Your task to perform on an android device: toggle location history Image 0: 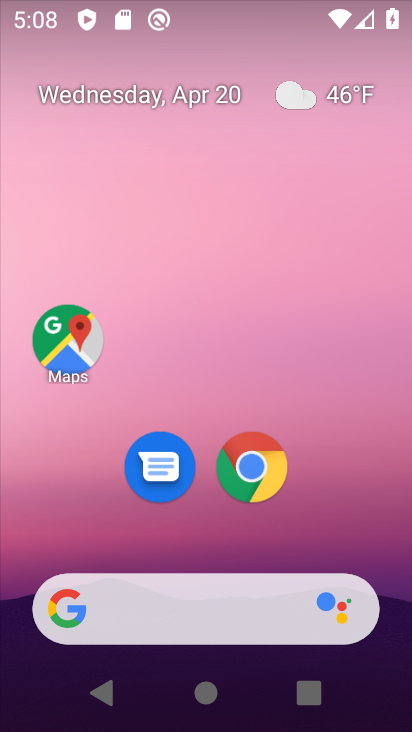
Step 0: click (264, 460)
Your task to perform on an android device: toggle location history Image 1: 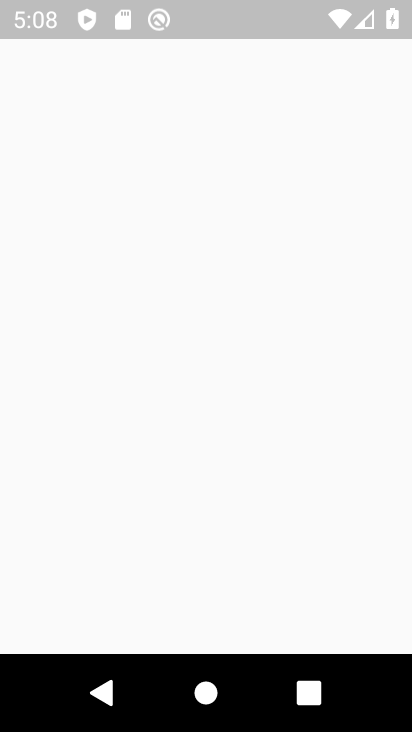
Step 1: click (253, 462)
Your task to perform on an android device: toggle location history Image 2: 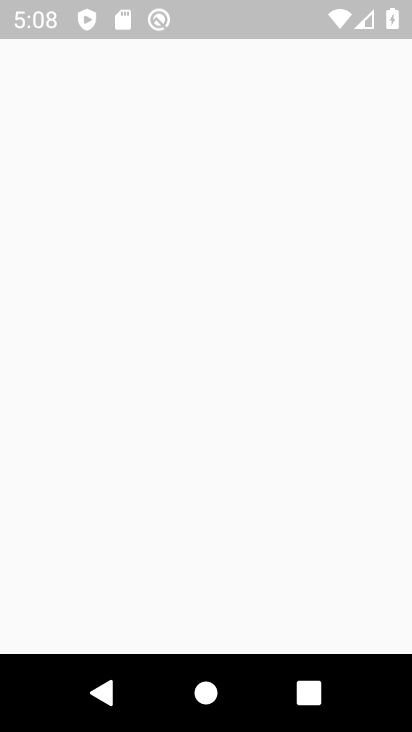
Step 2: press home button
Your task to perform on an android device: toggle location history Image 3: 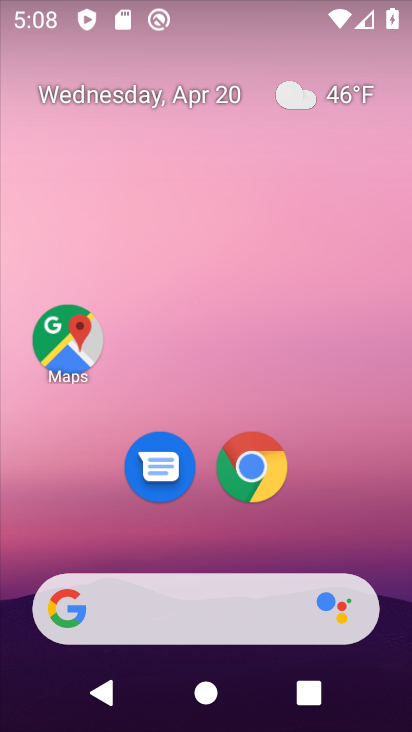
Step 3: drag from (197, 533) to (206, 107)
Your task to perform on an android device: toggle location history Image 4: 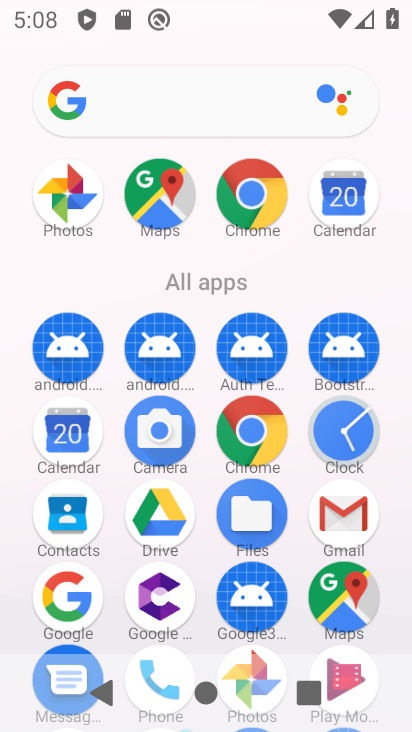
Step 4: drag from (217, 570) to (247, 180)
Your task to perform on an android device: toggle location history Image 5: 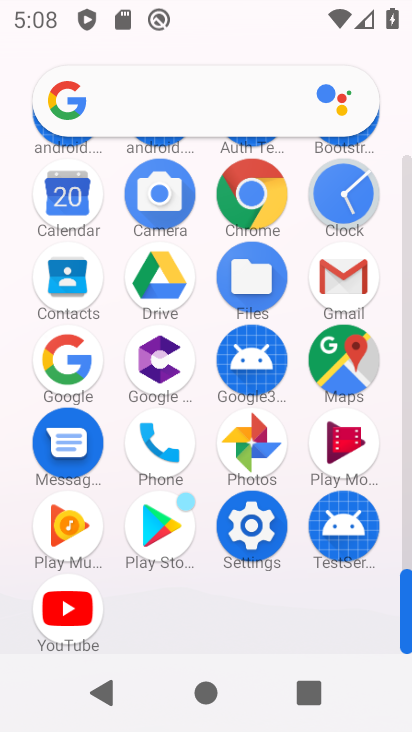
Step 5: click (259, 545)
Your task to perform on an android device: toggle location history Image 6: 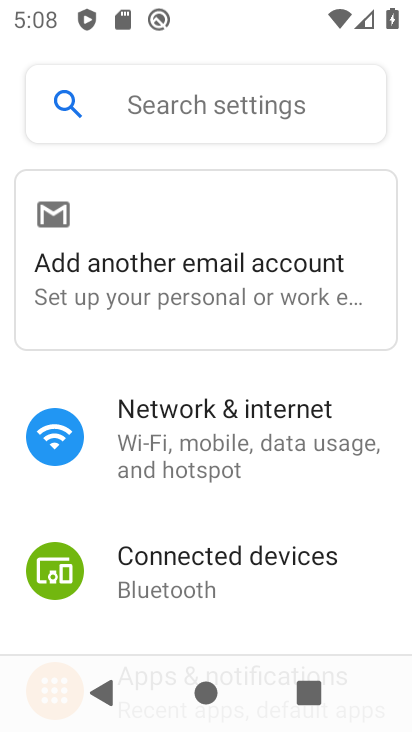
Step 6: drag from (222, 545) to (257, 161)
Your task to perform on an android device: toggle location history Image 7: 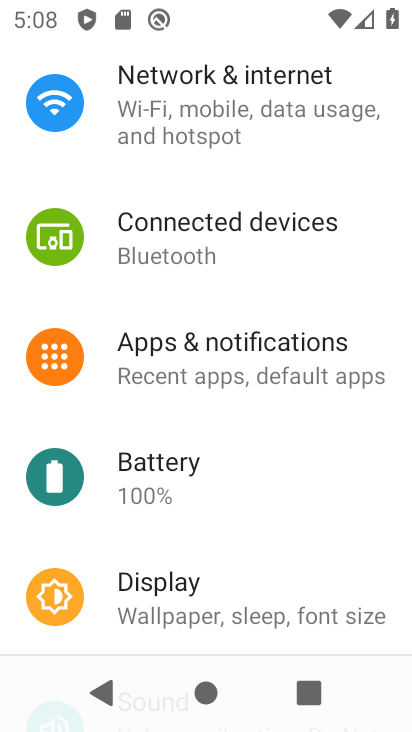
Step 7: drag from (224, 331) to (263, 133)
Your task to perform on an android device: toggle location history Image 8: 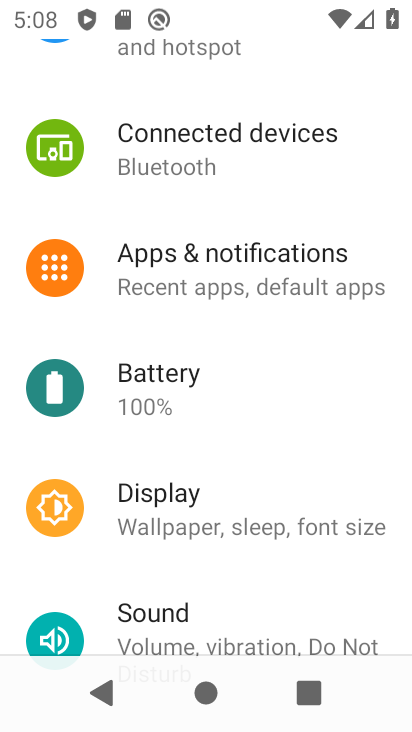
Step 8: drag from (205, 516) to (271, 83)
Your task to perform on an android device: toggle location history Image 9: 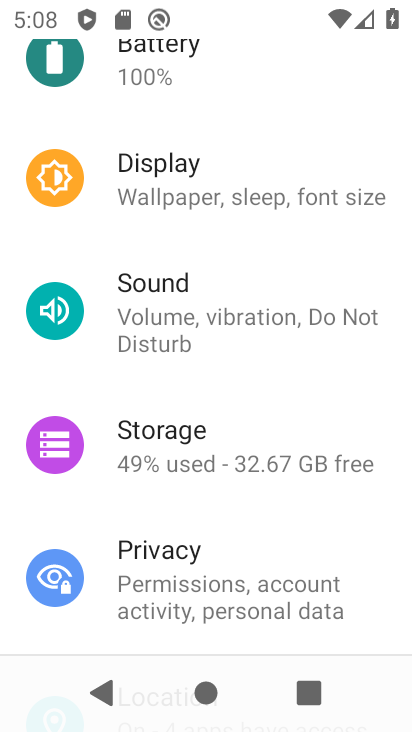
Step 9: drag from (223, 546) to (285, 29)
Your task to perform on an android device: toggle location history Image 10: 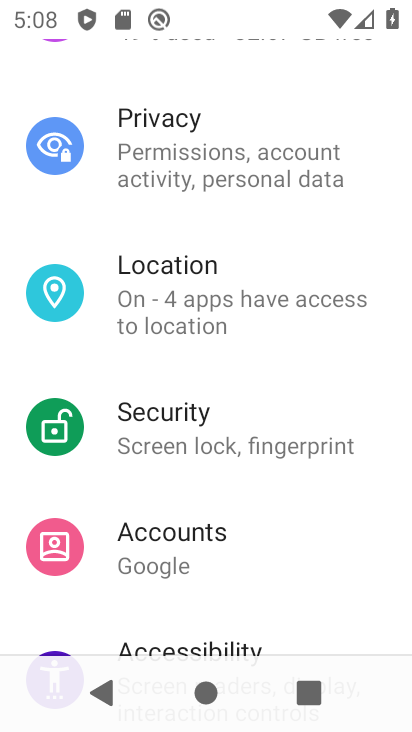
Step 10: click (193, 315)
Your task to perform on an android device: toggle location history Image 11: 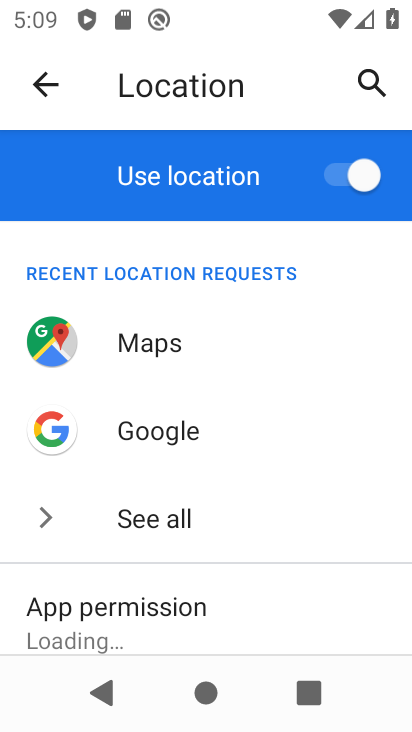
Step 11: drag from (162, 544) to (168, 215)
Your task to perform on an android device: toggle location history Image 12: 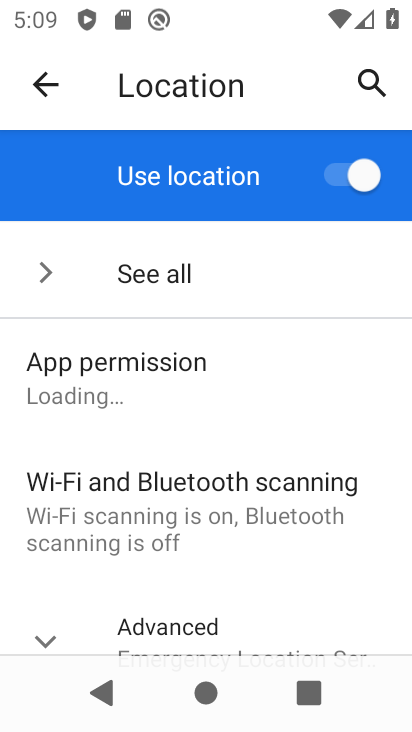
Step 12: drag from (151, 549) to (183, 169)
Your task to perform on an android device: toggle location history Image 13: 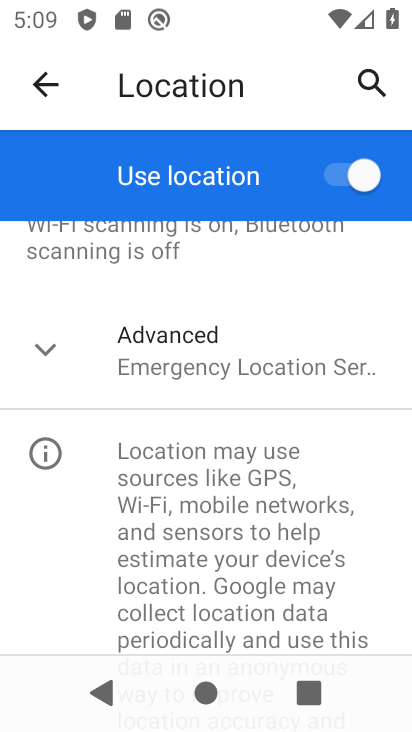
Step 13: click (188, 382)
Your task to perform on an android device: toggle location history Image 14: 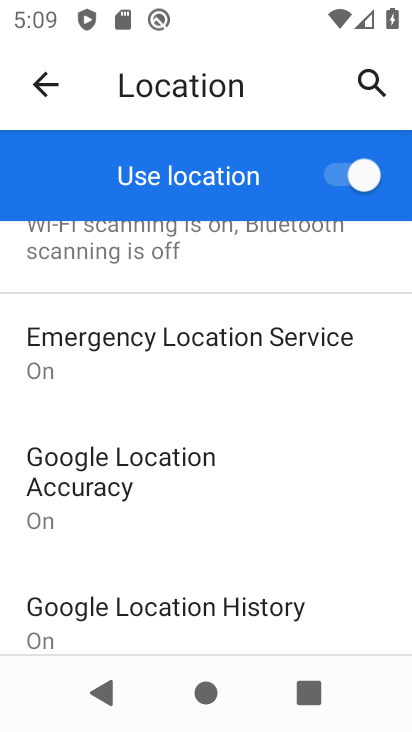
Step 14: drag from (161, 537) to (198, 377)
Your task to perform on an android device: toggle location history Image 15: 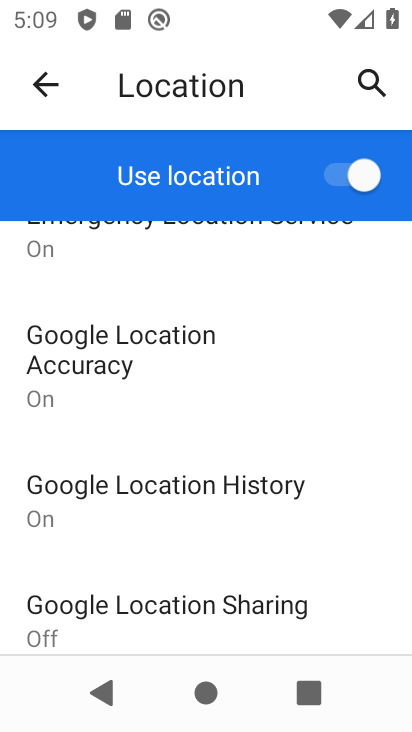
Step 15: click (155, 493)
Your task to perform on an android device: toggle location history Image 16: 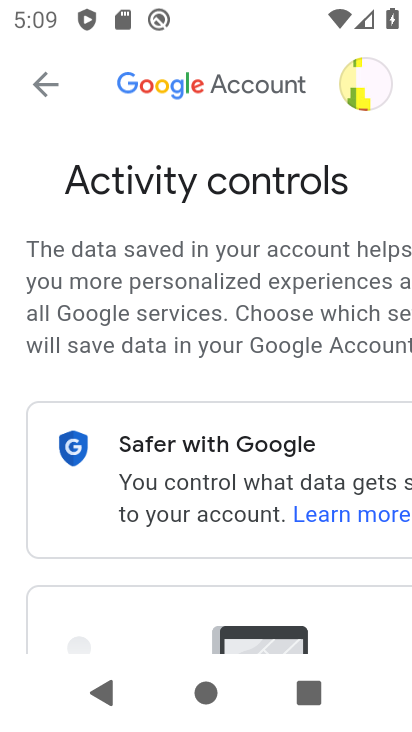
Step 16: drag from (216, 531) to (263, 191)
Your task to perform on an android device: toggle location history Image 17: 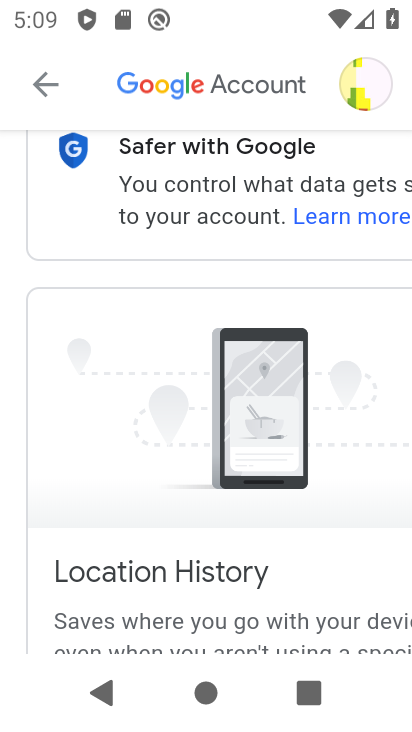
Step 17: drag from (202, 535) to (261, 138)
Your task to perform on an android device: toggle location history Image 18: 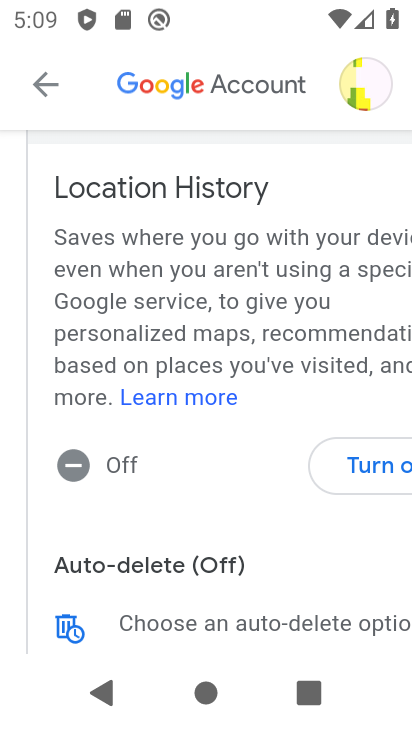
Step 18: click (341, 476)
Your task to perform on an android device: toggle location history Image 19: 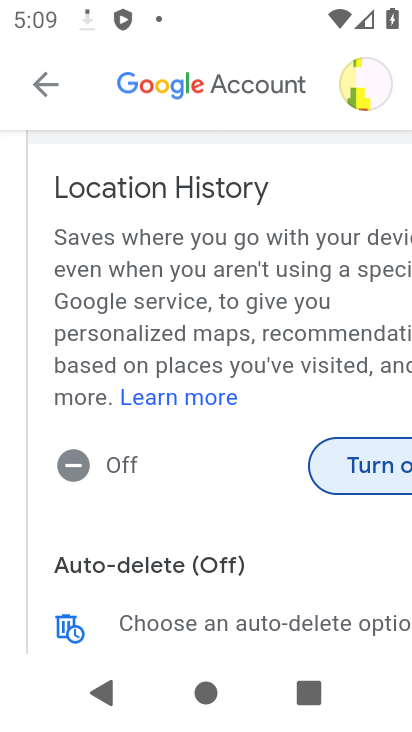
Step 19: click (345, 459)
Your task to perform on an android device: toggle location history Image 20: 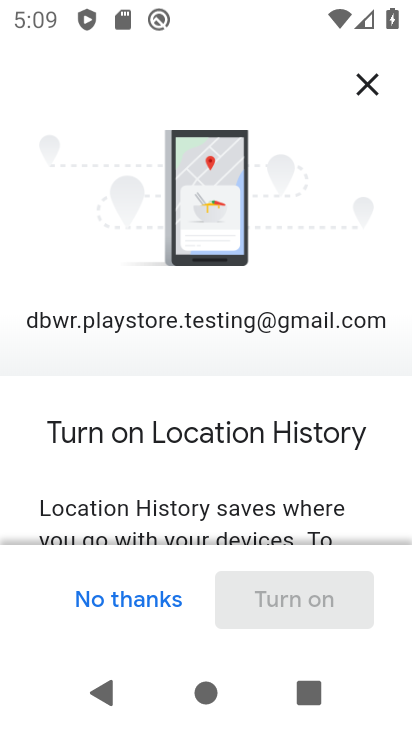
Step 20: drag from (273, 483) to (381, 15)
Your task to perform on an android device: toggle location history Image 21: 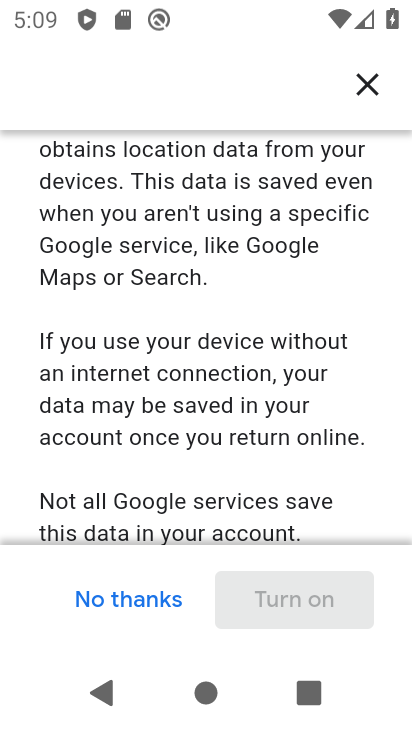
Step 21: drag from (213, 418) to (290, 33)
Your task to perform on an android device: toggle location history Image 22: 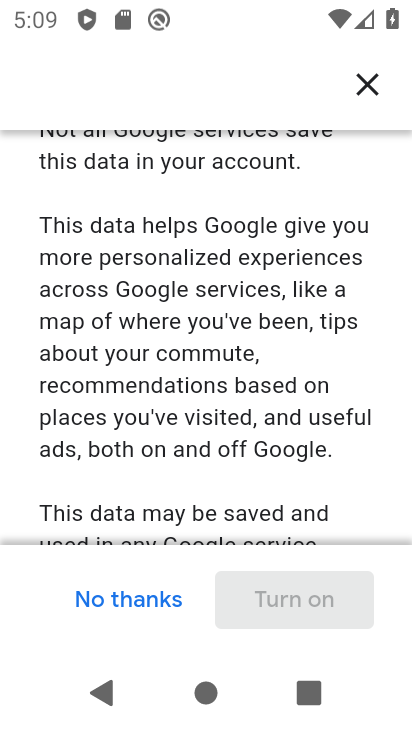
Step 22: drag from (175, 467) to (292, 7)
Your task to perform on an android device: toggle location history Image 23: 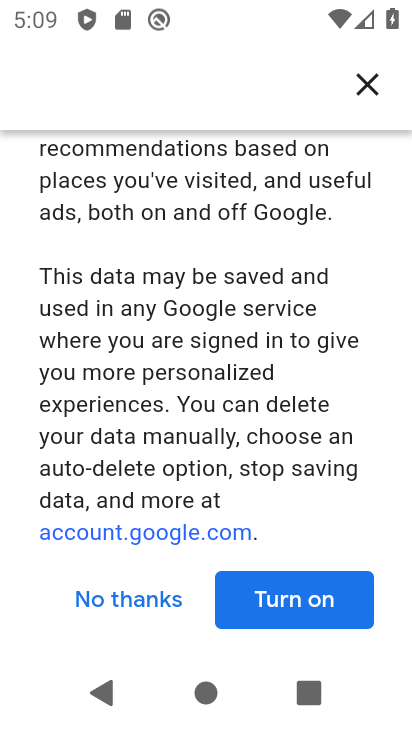
Step 23: click (294, 605)
Your task to perform on an android device: toggle location history Image 24: 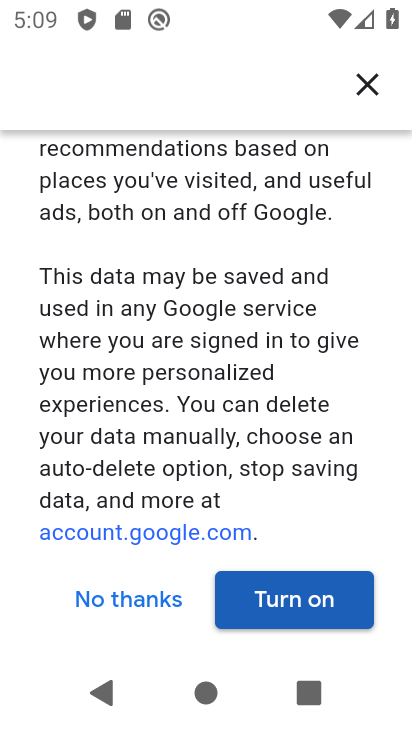
Step 24: click (304, 611)
Your task to perform on an android device: toggle location history Image 25: 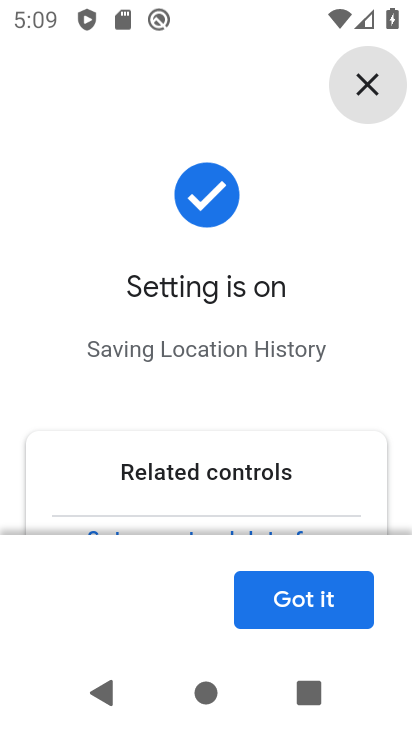
Step 25: click (331, 615)
Your task to perform on an android device: toggle location history Image 26: 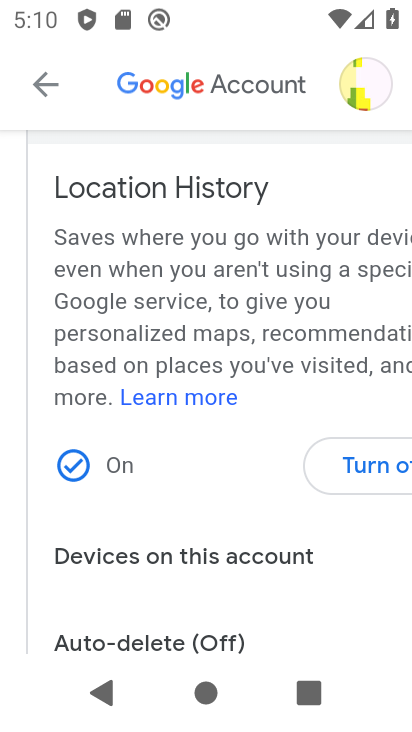
Step 26: task complete